Your task to perform on an android device: allow cookies in the chrome app Image 0: 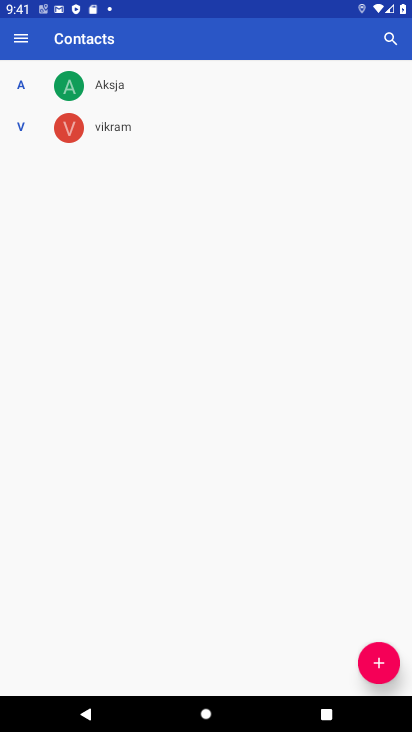
Step 0: press home button
Your task to perform on an android device: allow cookies in the chrome app Image 1: 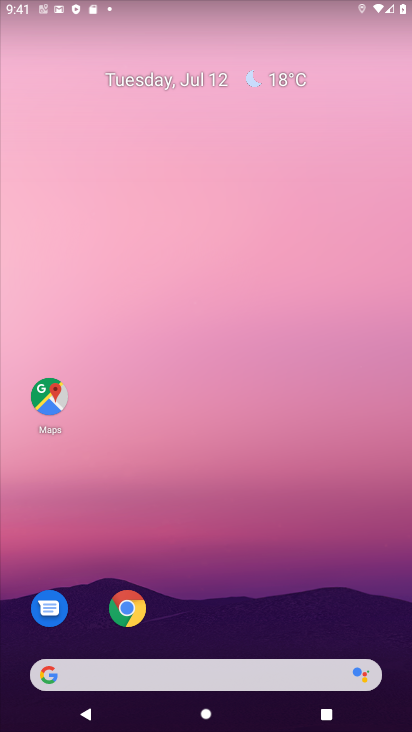
Step 1: click (129, 608)
Your task to perform on an android device: allow cookies in the chrome app Image 2: 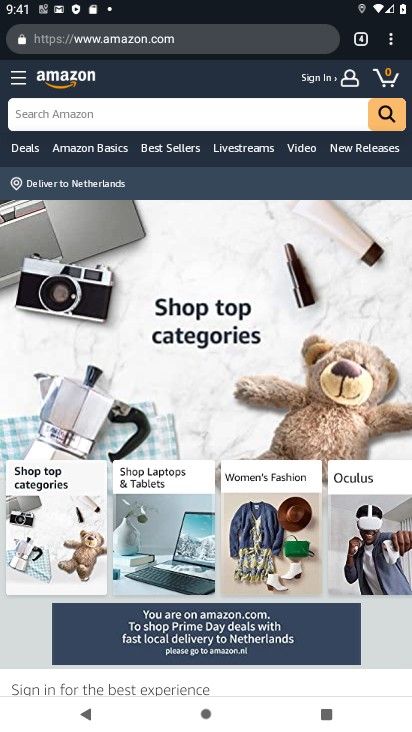
Step 2: click (393, 33)
Your task to perform on an android device: allow cookies in the chrome app Image 3: 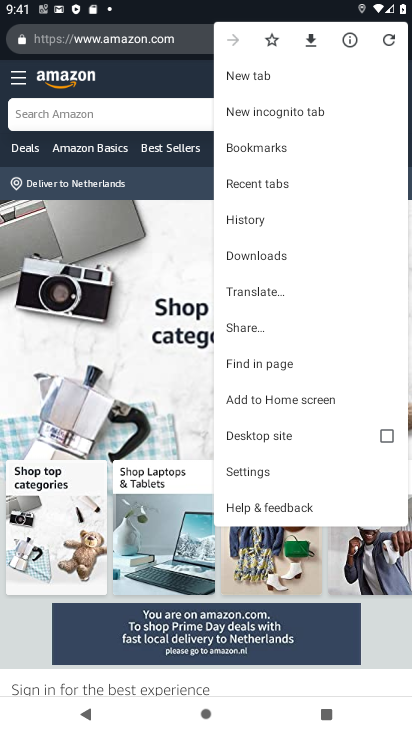
Step 3: click (252, 471)
Your task to perform on an android device: allow cookies in the chrome app Image 4: 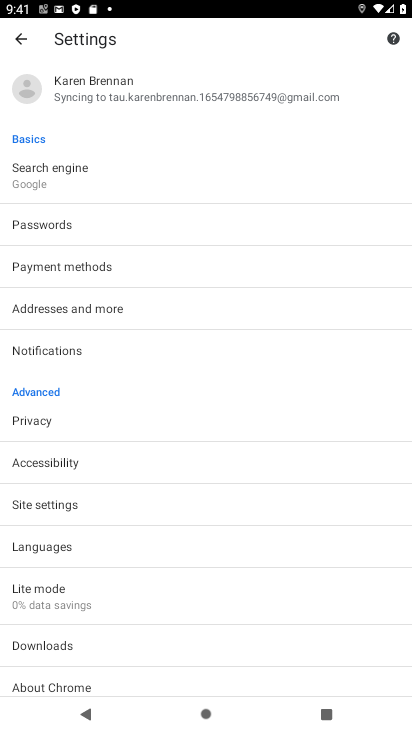
Step 4: click (45, 502)
Your task to perform on an android device: allow cookies in the chrome app Image 5: 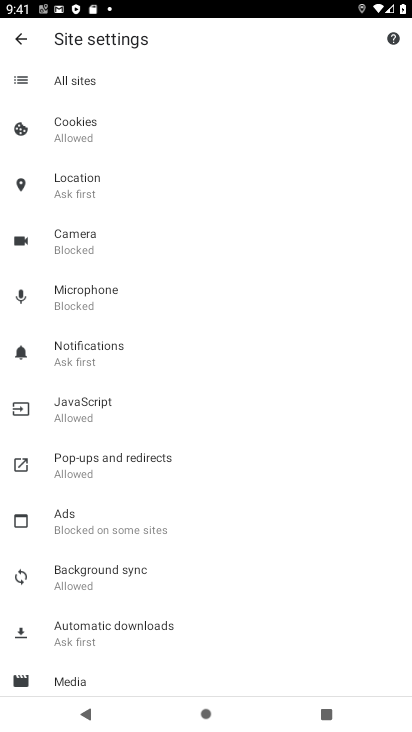
Step 5: click (82, 119)
Your task to perform on an android device: allow cookies in the chrome app Image 6: 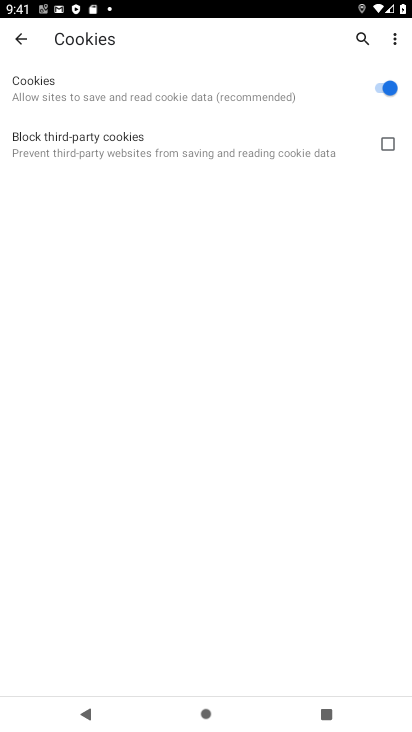
Step 6: task complete